Your task to perform on an android device: Go to notification settings Image 0: 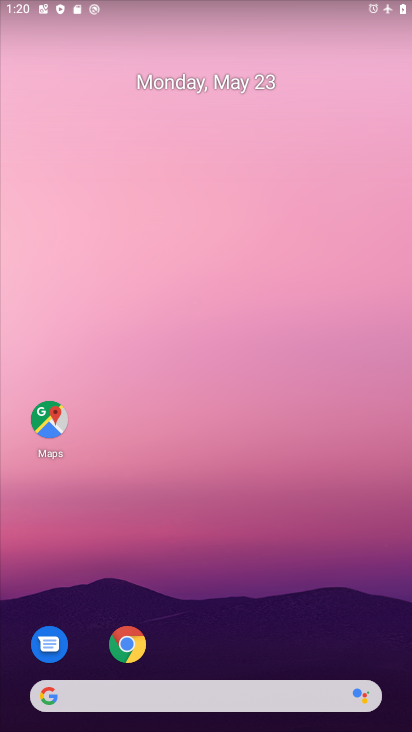
Step 0: drag from (324, 612) to (279, 137)
Your task to perform on an android device: Go to notification settings Image 1: 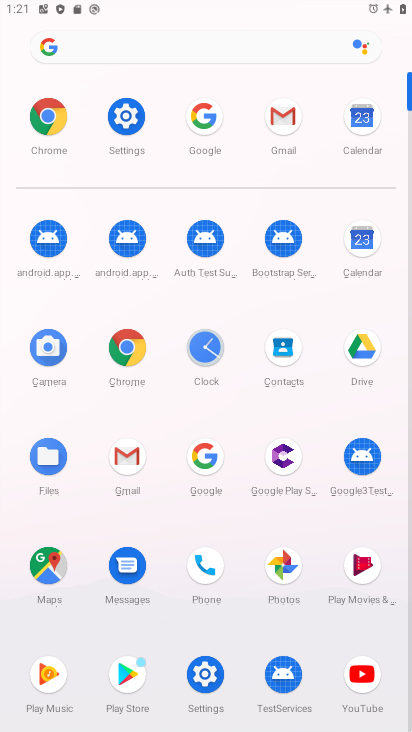
Step 1: click (217, 689)
Your task to perform on an android device: Go to notification settings Image 2: 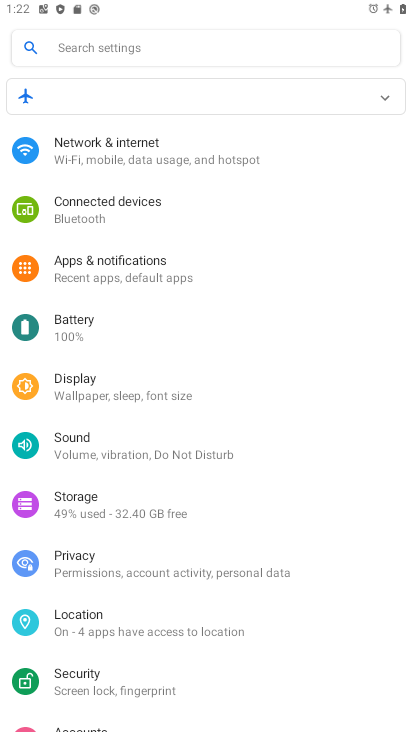
Step 2: click (169, 277)
Your task to perform on an android device: Go to notification settings Image 3: 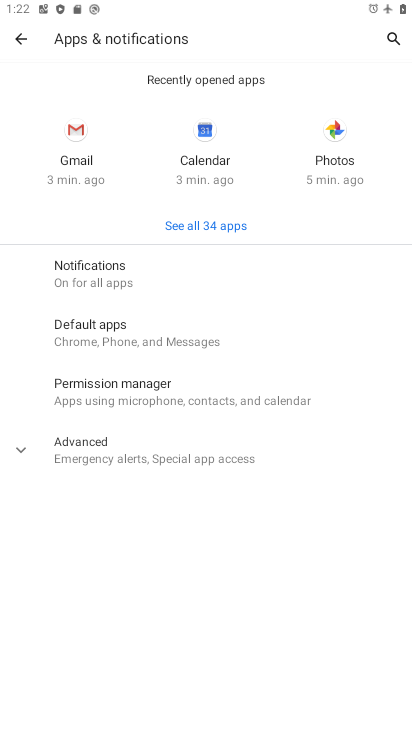
Step 3: click (169, 277)
Your task to perform on an android device: Go to notification settings Image 4: 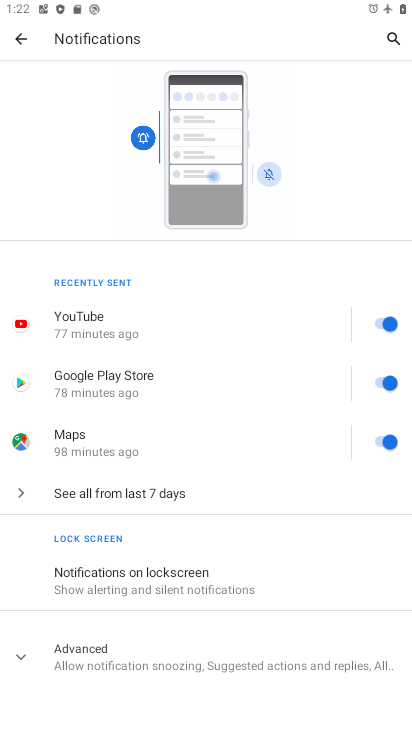
Step 4: task complete